Your task to perform on an android device: turn off translation in the chrome app Image 0: 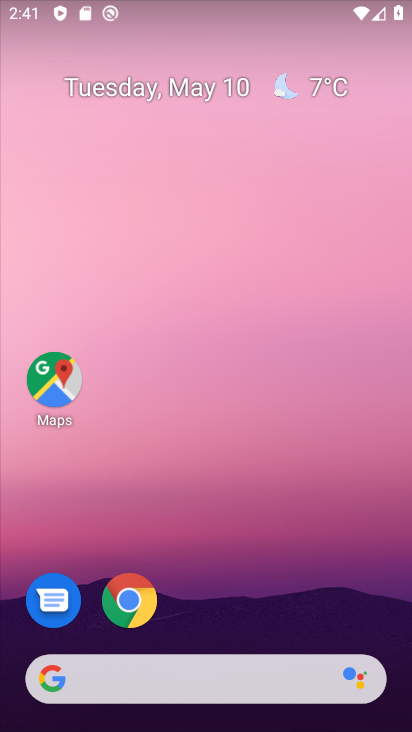
Step 0: click (130, 611)
Your task to perform on an android device: turn off translation in the chrome app Image 1: 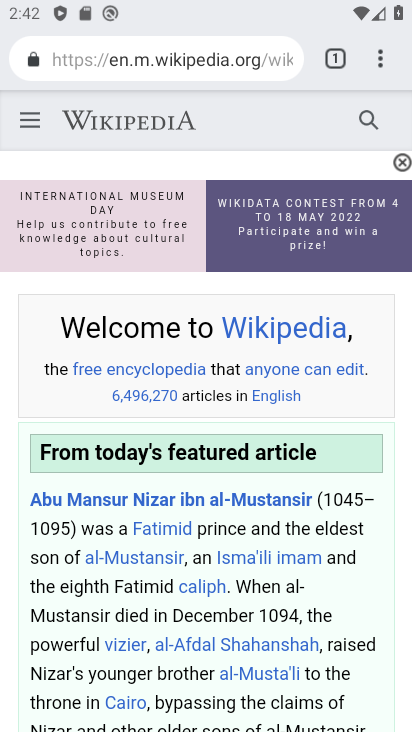
Step 1: click (380, 49)
Your task to perform on an android device: turn off translation in the chrome app Image 2: 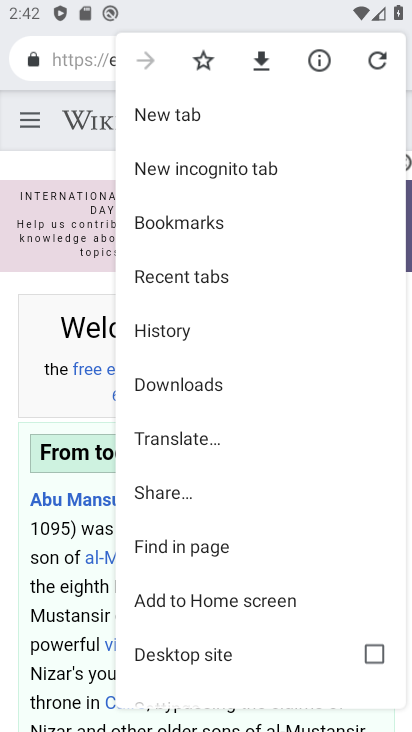
Step 2: drag from (285, 607) to (271, 86)
Your task to perform on an android device: turn off translation in the chrome app Image 3: 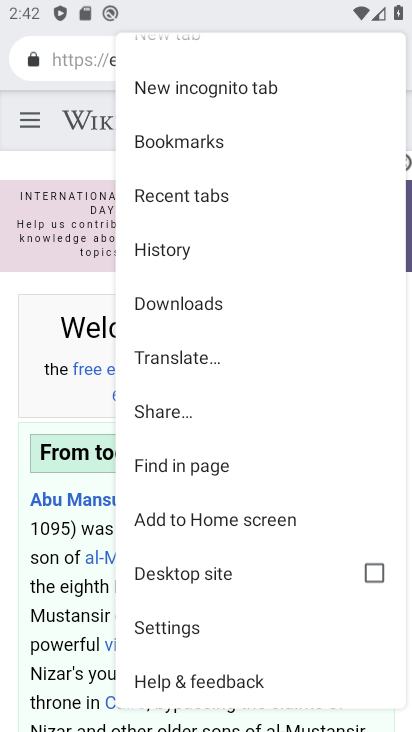
Step 3: click (195, 628)
Your task to perform on an android device: turn off translation in the chrome app Image 4: 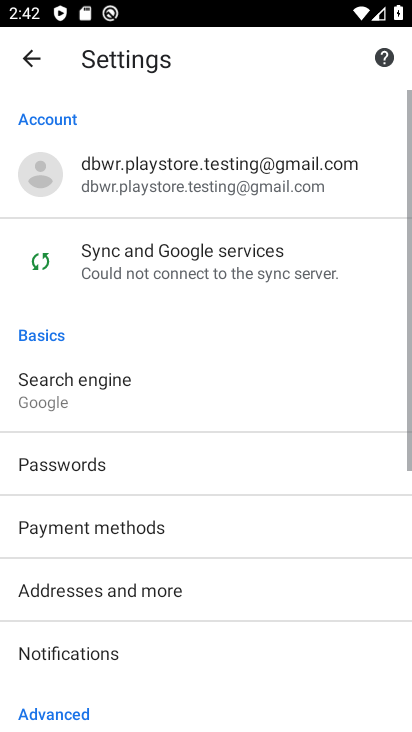
Step 4: drag from (145, 598) to (77, 200)
Your task to perform on an android device: turn off translation in the chrome app Image 5: 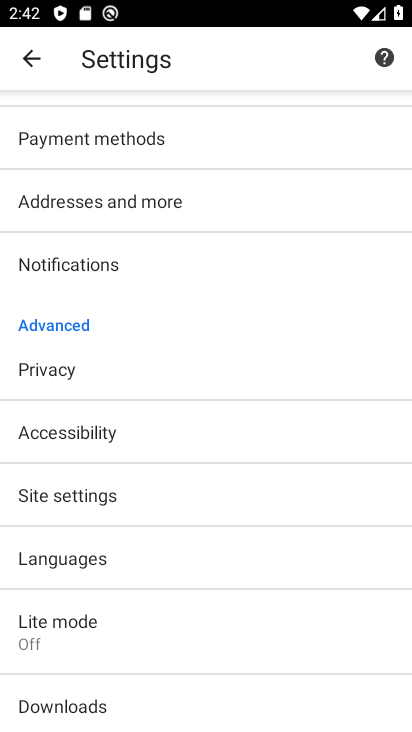
Step 5: click (150, 571)
Your task to perform on an android device: turn off translation in the chrome app Image 6: 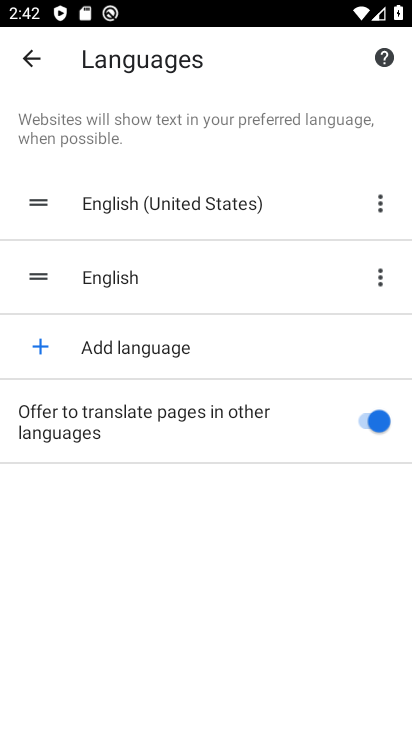
Step 6: click (372, 437)
Your task to perform on an android device: turn off translation in the chrome app Image 7: 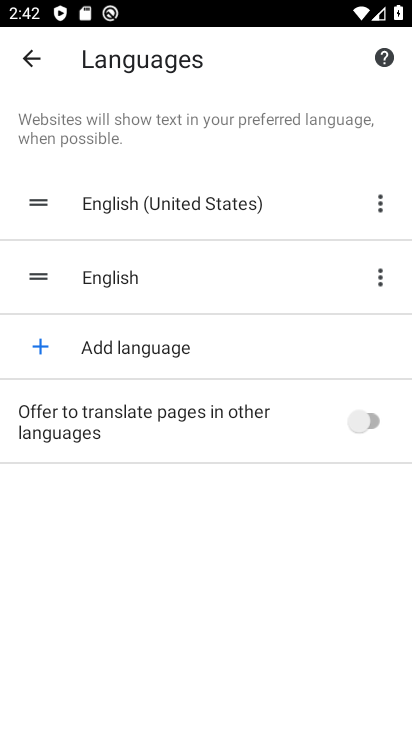
Step 7: task complete